Your task to perform on an android device: Open notification settings Image 0: 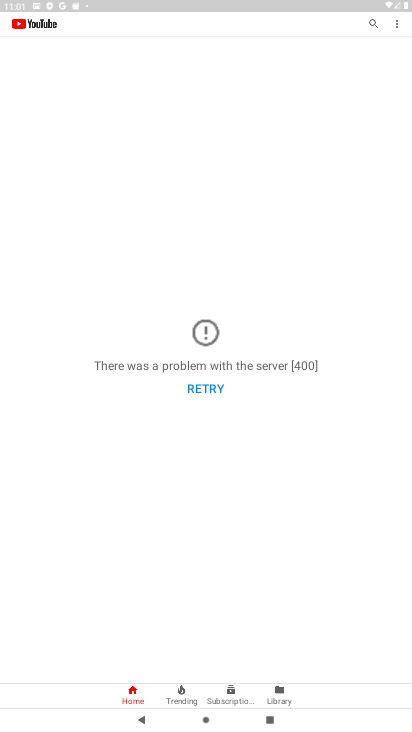
Step 0: press home button
Your task to perform on an android device: Open notification settings Image 1: 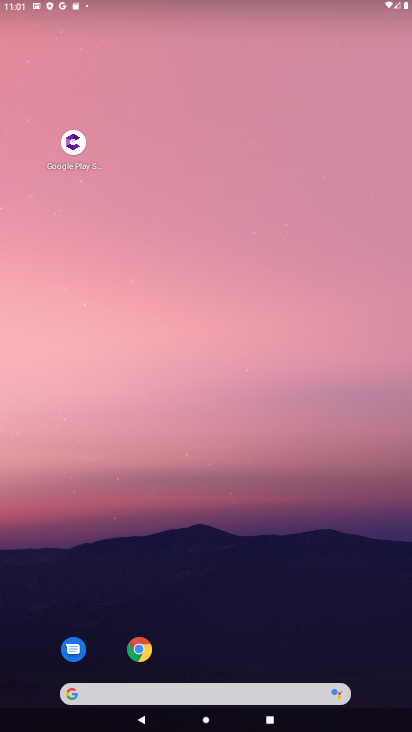
Step 1: drag from (342, 643) to (290, 0)
Your task to perform on an android device: Open notification settings Image 2: 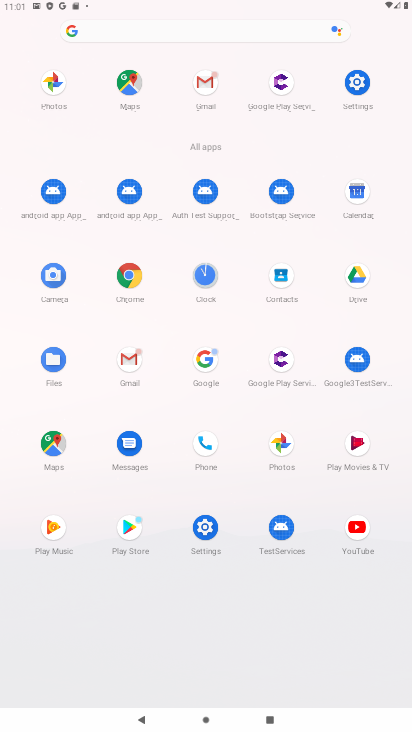
Step 2: click (204, 516)
Your task to perform on an android device: Open notification settings Image 3: 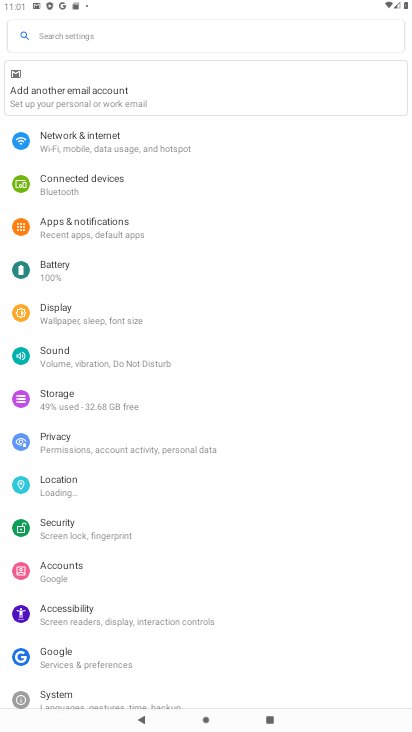
Step 3: click (88, 224)
Your task to perform on an android device: Open notification settings Image 4: 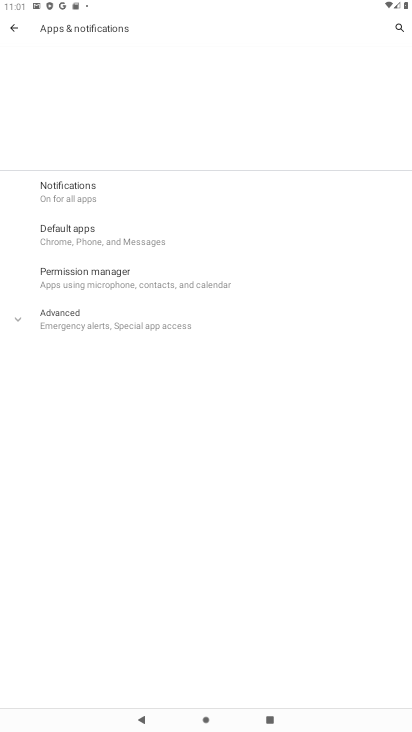
Step 4: click (96, 197)
Your task to perform on an android device: Open notification settings Image 5: 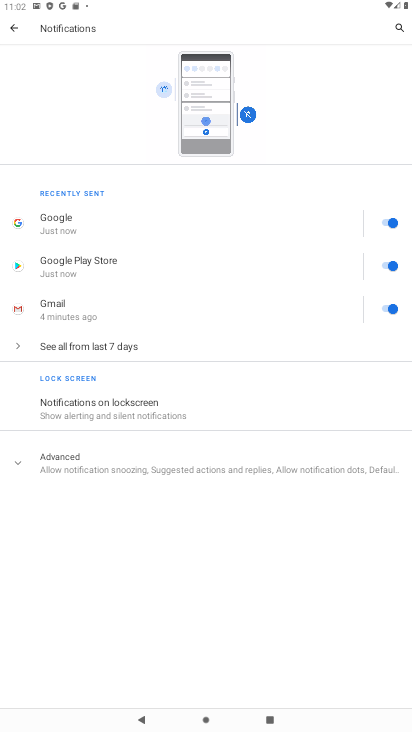
Step 5: task complete